Your task to perform on an android device: toggle priority inbox in the gmail app Image 0: 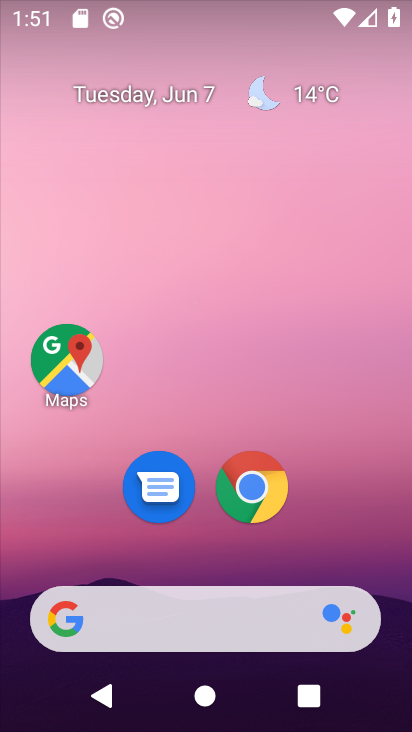
Step 0: drag from (226, 573) to (370, 637)
Your task to perform on an android device: toggle priority inbox in the gmail app Image 1: 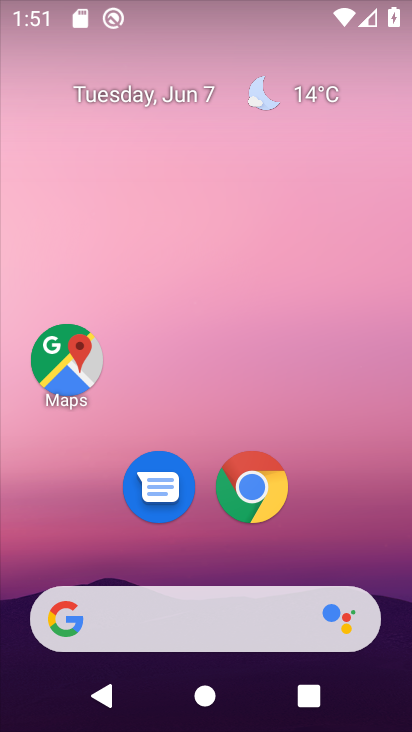
Step 1: drag from (178, 568) to (403, 10)
Your task to perform on an android device: toggle priority inbox in the gmail app Image 2: 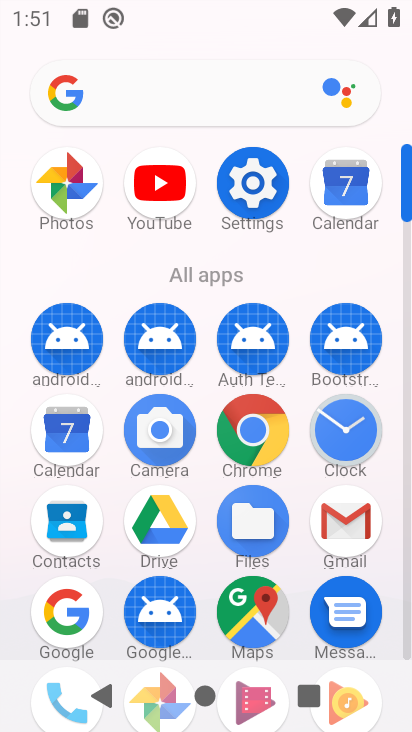
Step 2: click (351, 499)
Your task to perform on an android device: toggle priority inbox in the gmail app Image 3: 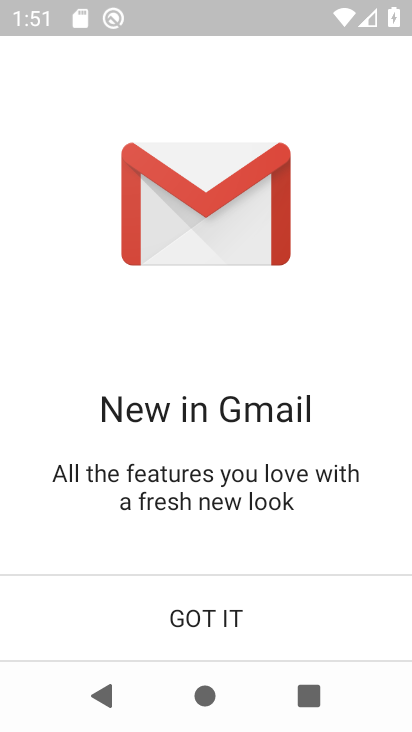
Step 3: click (199, 645)
Your task to perform on an android device: toggle priority inbox in the gmail app Image 4: 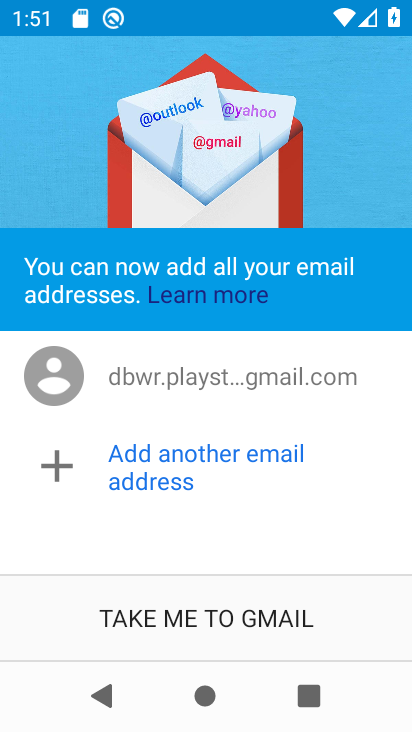
Step 4: click (238, 619)
Your task to perform on an android device: toggle priority inbox in the gmail app Image 5: 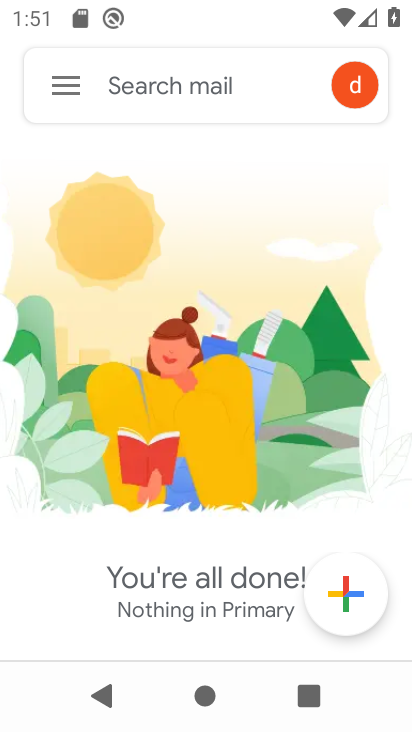
Step 5: click (46, 80)
Your task to perform on an android device: toggle priority inbox in the gmail app Image 6: 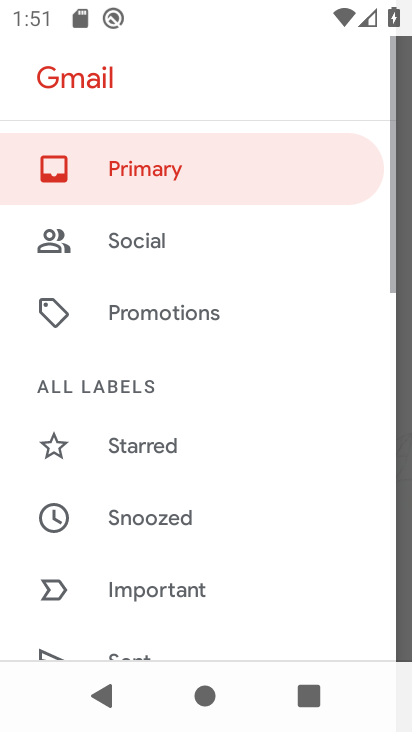
Step 6: drag from (198, 516) to (207, 16)
Your task to perform on an android device: toggle priority inbox in the gmail app Image 7: 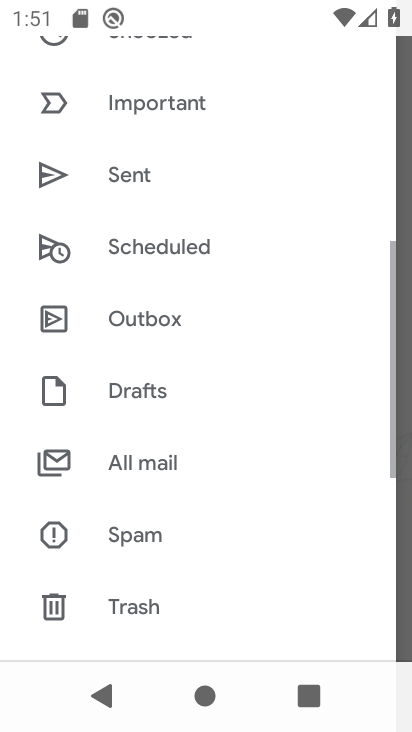
Step 7: drag from (220, 629) to (221, 7)
Your task to perform on an android device: toggle priority inbox in the gmail app Image 8: 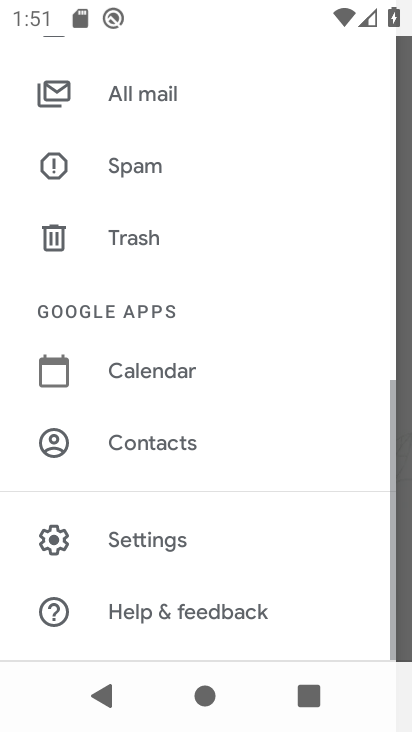
Step 8: click (157, 546)
Your task to perform on an android device: toggle priority inbox in the gmail app Image 9: 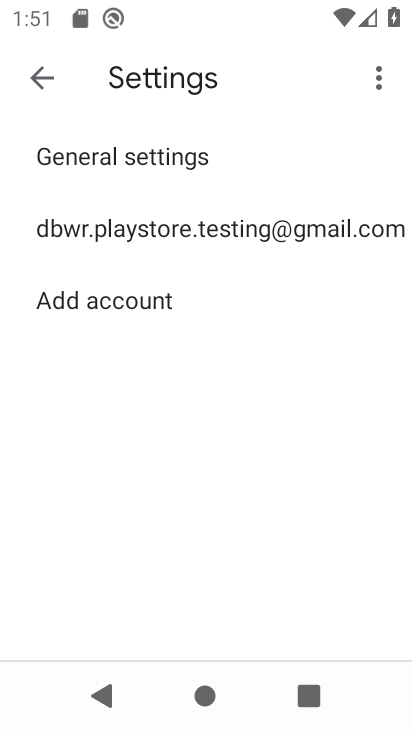
Step 9: click (93, 217)
Your task to perform on an android device: toggle priority inbox in the gmail app Image 10: 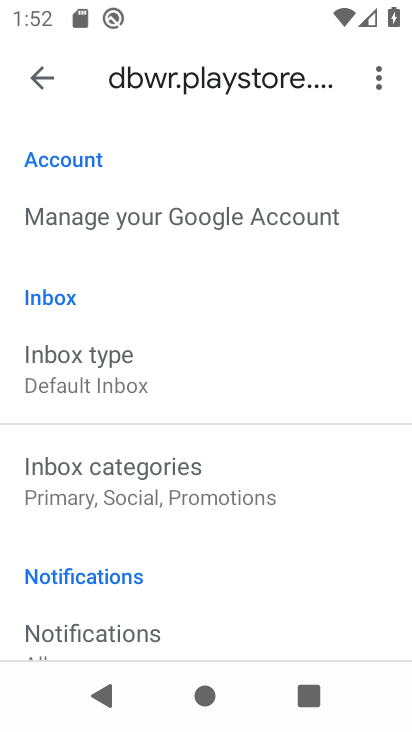
Step 10: click (168, 382)
Your task to perform on an android device: toggle priority inbox in the gmail app Image 11: 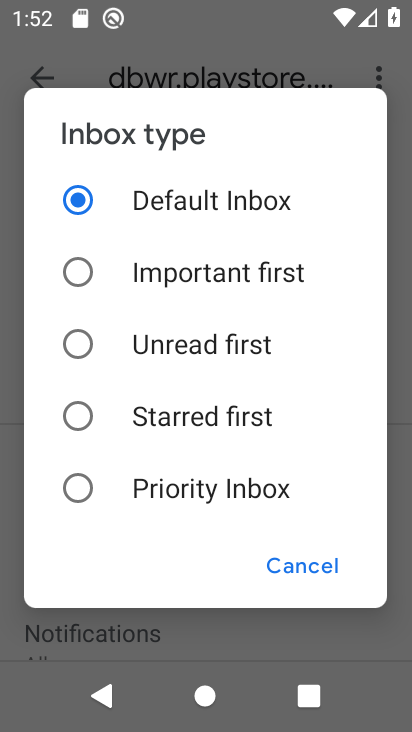
Step 11: click (173, 489)
Your task to perform on an android device: toggle priority inbox in the gmail app Image 12: 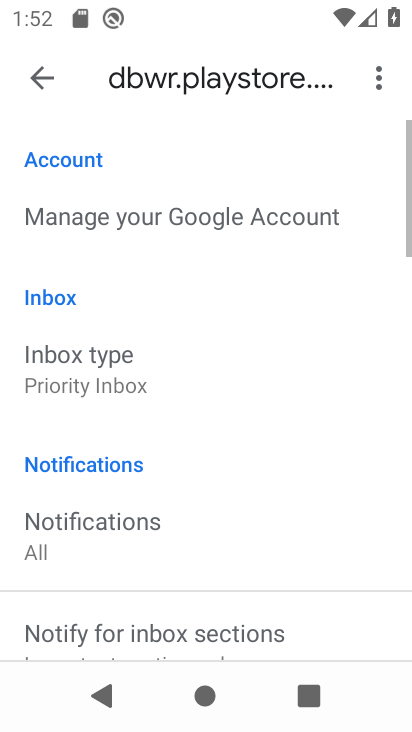
Step 12: task complete